Your task to perform on an android device: Open Wikipedia Image 0: 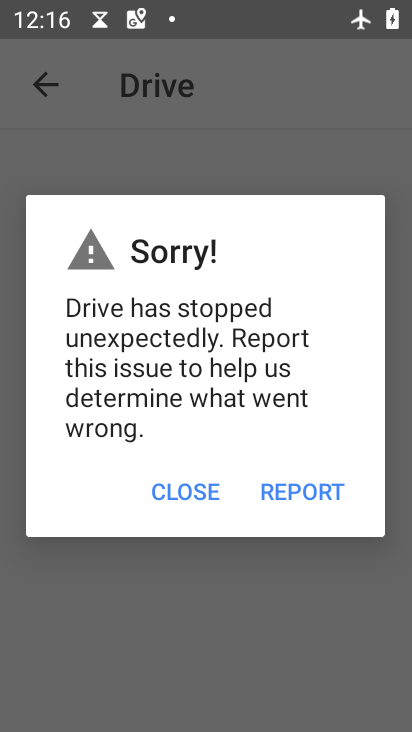
Step 0: press home button
Your task to perform on an android device: Open Wikipedia Image 1: 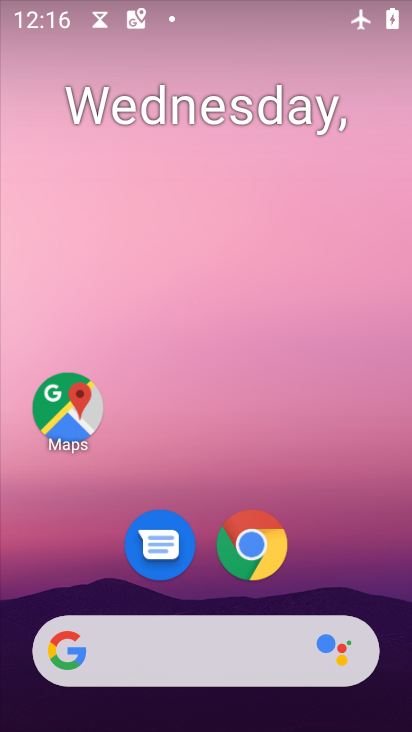
Step 1: drag from (362, 506) to (402, 254)
Your task to perform on an android device: Open Wikipedia Image 2: 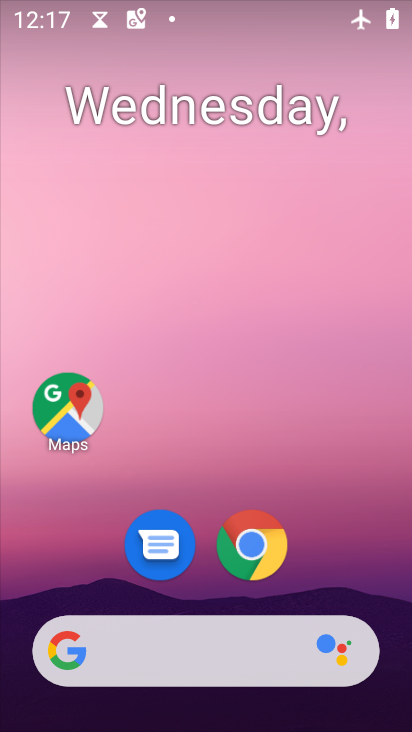
Step 2: drag from (317, 594) to (310, 91)
Your task to perform on an android device: Open Wikipedia Image 3: 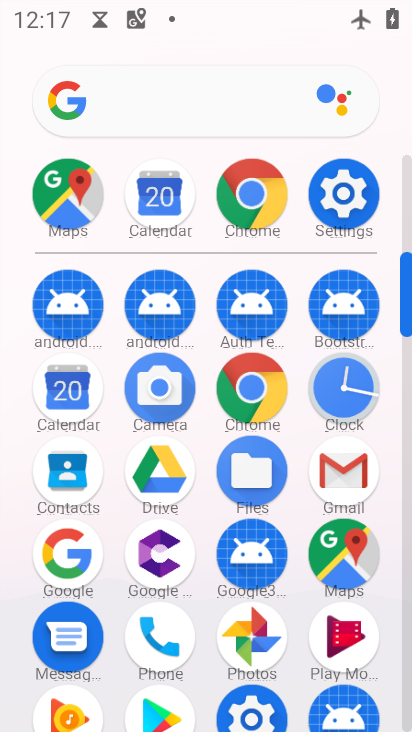
Step 3: click (327, 210)
Your task to perform on an android device: Open Wikipedia Image 4: 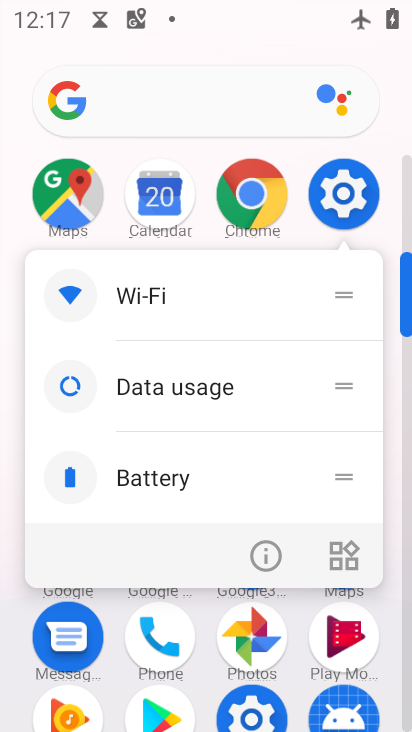
Step 4: click (272, 194)
Your task to perform on an android device: Open Wikipedia Image 5: 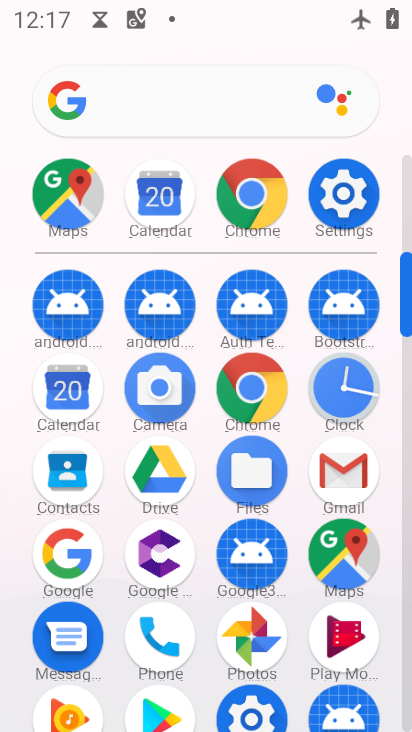
Step 5: click (258, 224)
Your task to perform on an android device: Open Wikipedia Image 6: 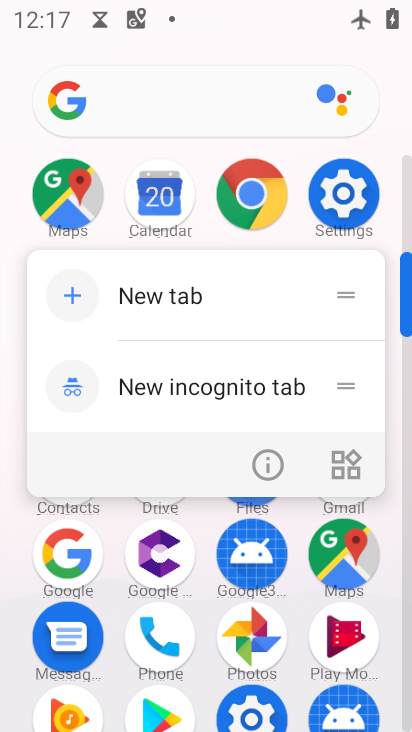
Step 6: click (251, 190)
Your task to perform on an android device: Open Wikipedia Image 7: 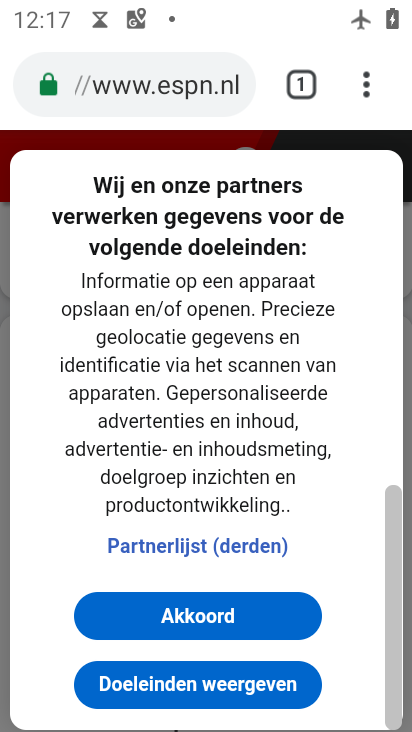
Step 7: click (367, 98)
Your task to perform on an android device: Open Wikipedia Image 8: 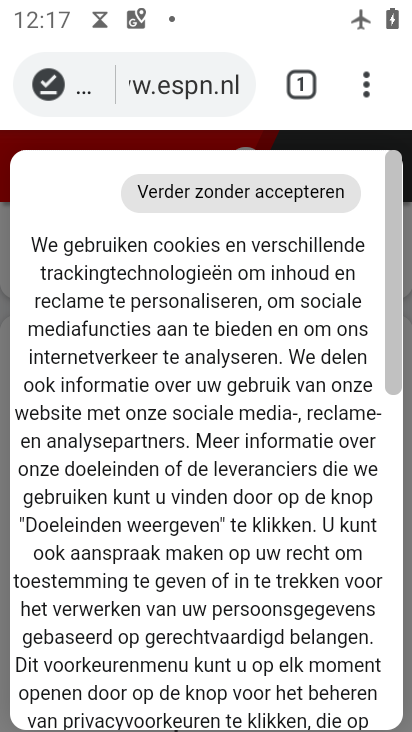
Step 8: drag from (356, 89) to (78, 181)
Your task to perform on an android device: Open Wikipedia Image 9: 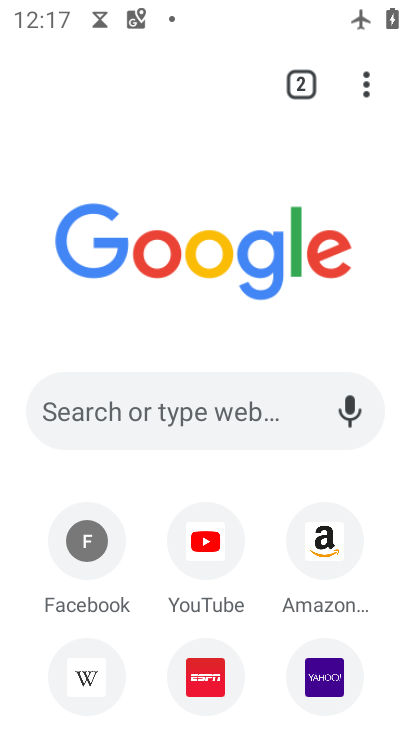
Step 9: drag from (385, 663) to (397, 257)
Your task to perform on an android device: Open Wikipedia Image 10: 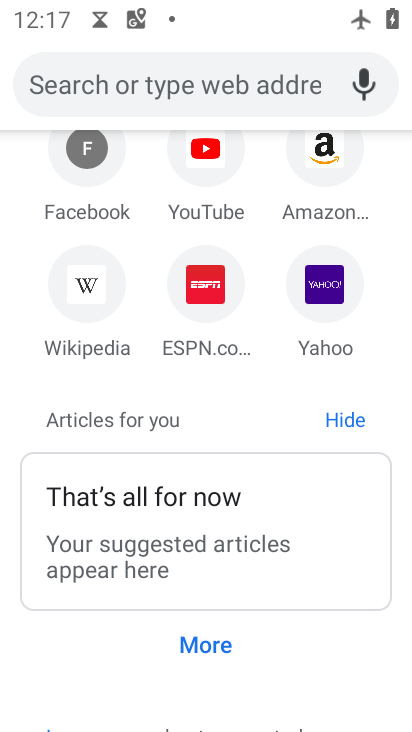
Step 10: drag from (377, 646) to (372, 351)
Your task to perform on an android device: Open Wikipedia Image 11: 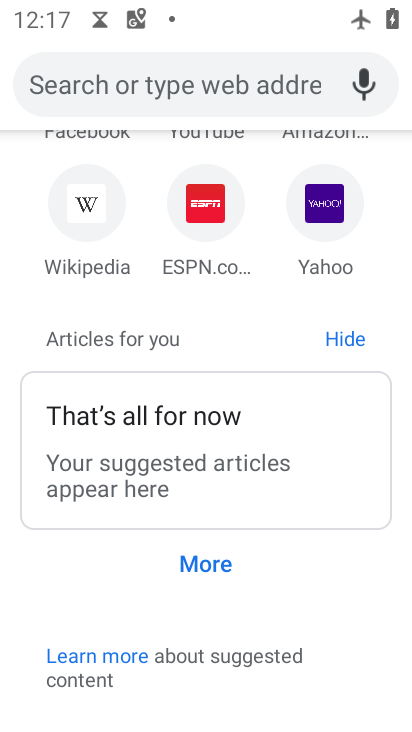
Step 11: click (98, 215)
Your task to perform on an android device: Open Wikipedia Image 12: 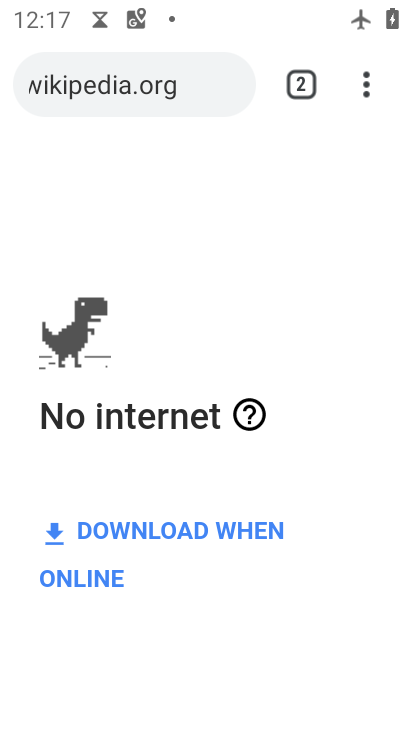
Step 12: task complete